Your task to perform on an android device: Search for "bose soundlink mini" on newegg.com, select the first entry, add it to the cart, then select checkout. Image 0: 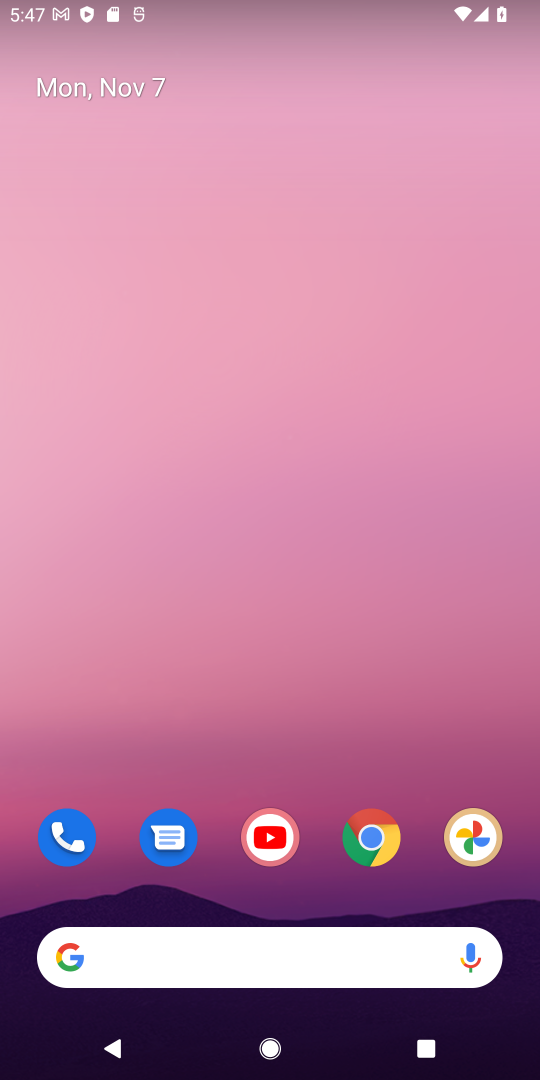
Step 0: click (379, 847)
Your task to perform on an android device: Search for "bose soundlink mini" on newegg.com, select the first entry, add it to the cart, then select checkout. Image 1: 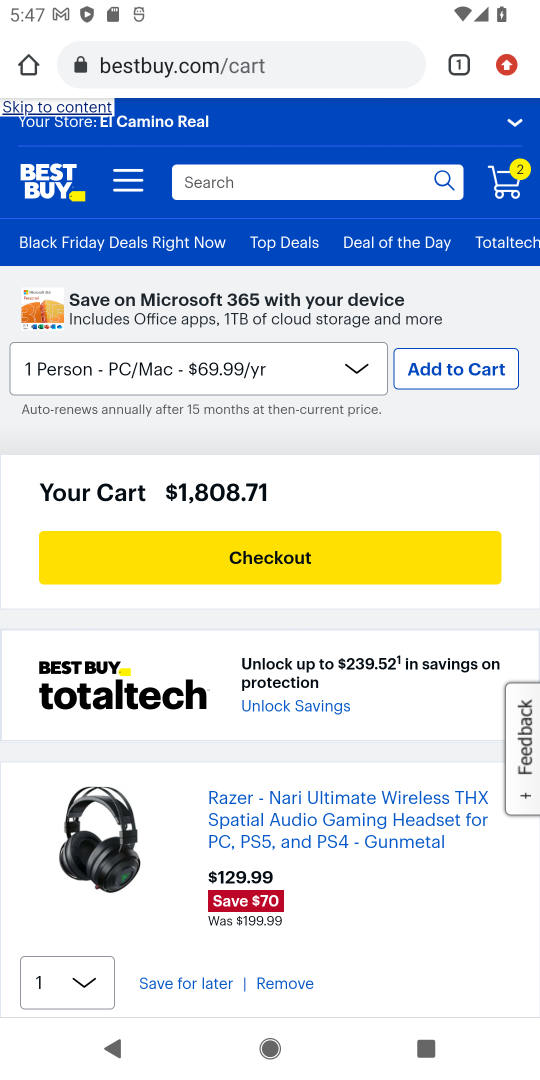
Step 1: click (237, 68)
Your task to perform on an android device: Search for "bose soundlink mini" on newegg.com, select the first entry, add it to the cart, then select checkout. Image 2: 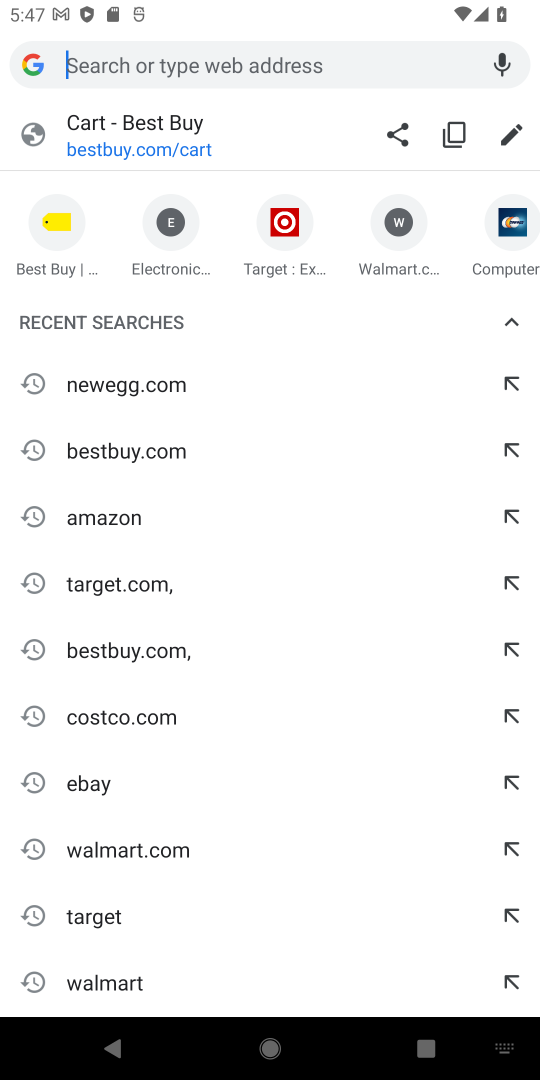
Step 2: type "newegg.com"
Your task to perform on an android device: Search for "bose soundlink mini" on newegg.com, select the first entry, add it to the cart, then select checkout. Image 3: 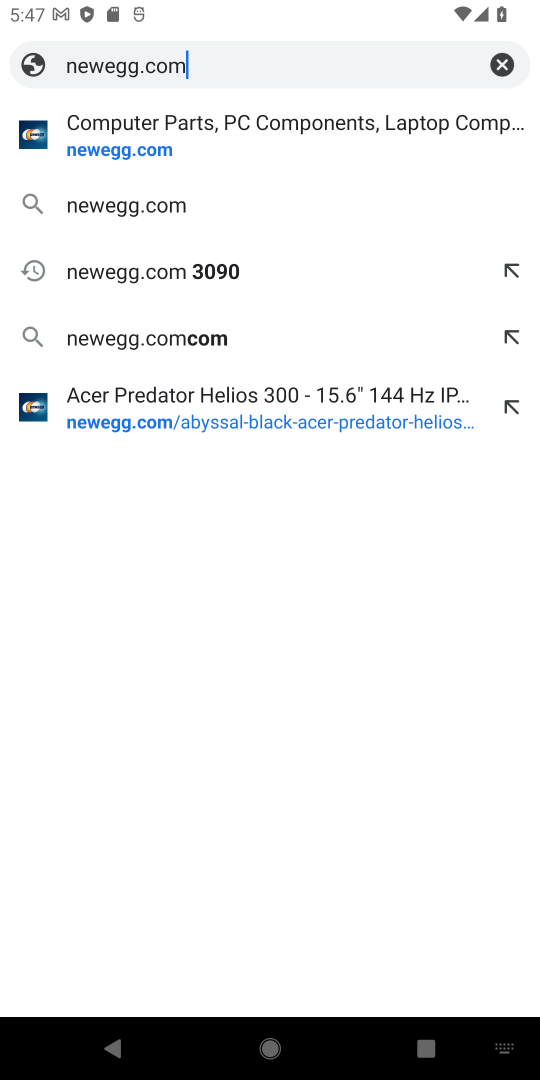
Step 3: click (187, 145)
Your task to perform on an android device: Search for "bose soundlink mini" on newegg.com, select the first entry, add it to the cart, then select checkout. Image 4: 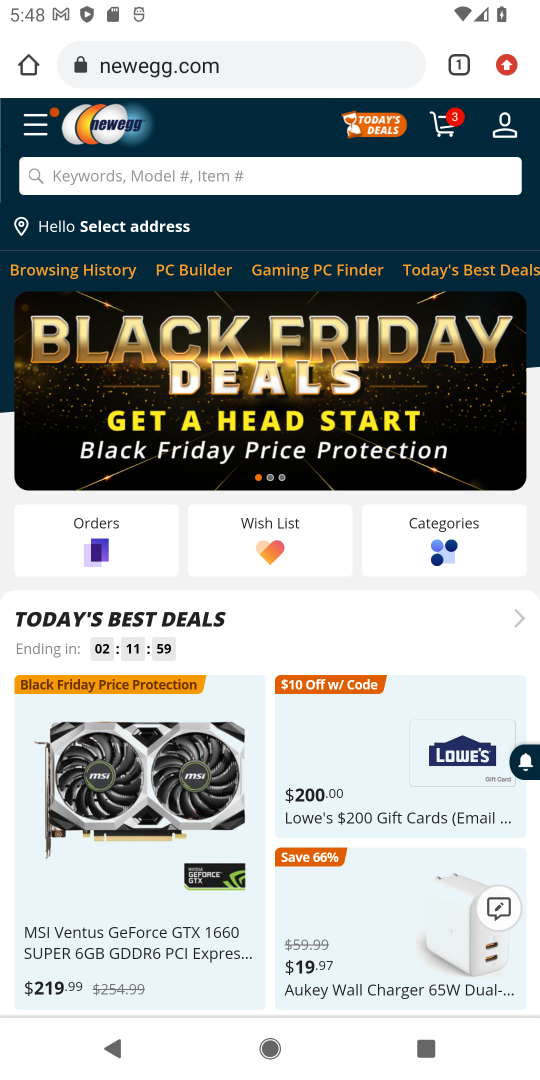
Step 4: click (218, 187)
Your task to perform on an android device: Search for "bose soundlink mini" on newegg.com, select the first entry, add it to the cart, then select checkout. Image 5: 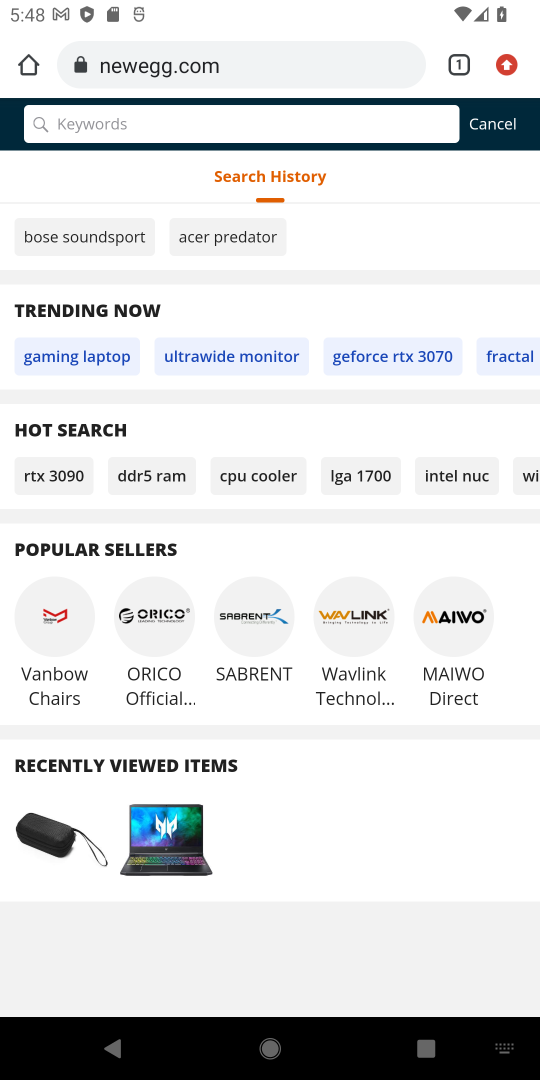
Step 5: type "bose soundlink mini"
Your task to perform on an android device: Search for "bose soundlink mini" on newegg.com, select the first entry, add it to the cart, then select checkout. Image 6: 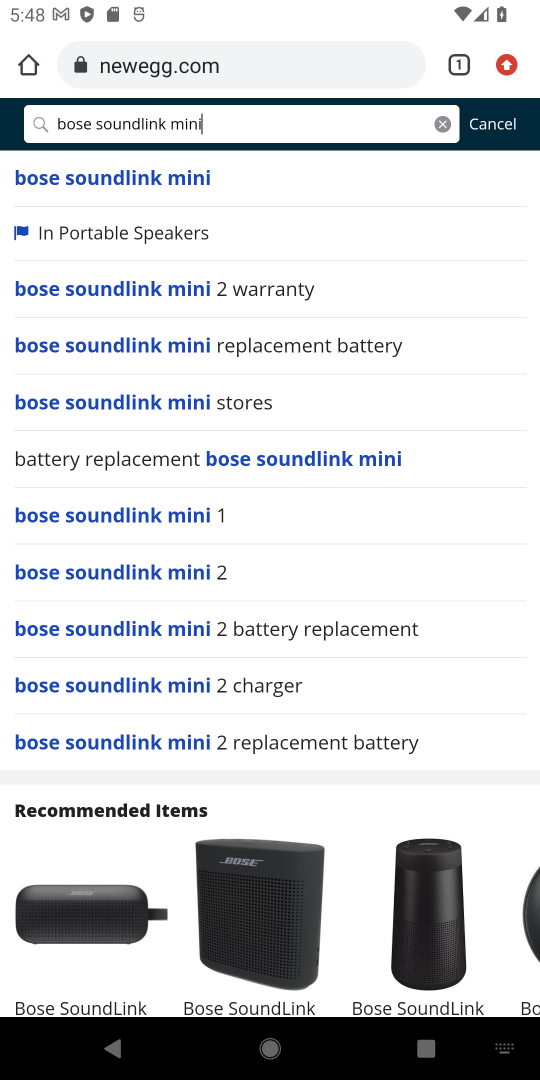
Step 6: press enter
Your task to perform on an android device: Search for "bose soundlink mini" on newegg.com, select the first entry, add it to the cart, then select checkout. Image 7: 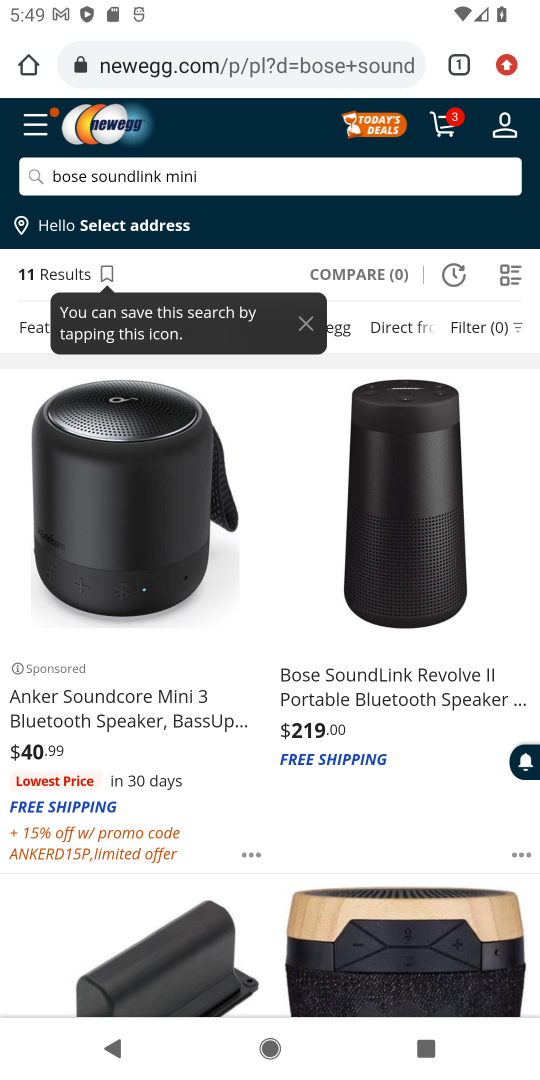
Step 7: click (200, 611)
Your task to perform on an android device: Search for "bose soundlink mini" on newegg.com, select the first entry, add it to the cart, then select checkout. Image 8: 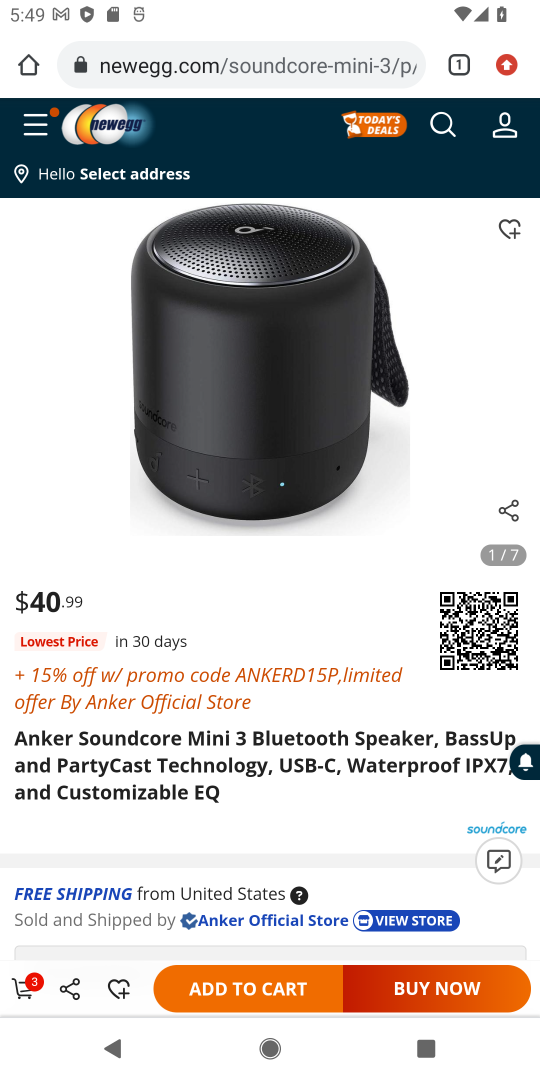
Step 8: click (280, 988)
Your task to perform on an android device: Search for "bose soundlink mini" on newegg.com, select the first entry, add it to the cart, then select checkout. Image 9: 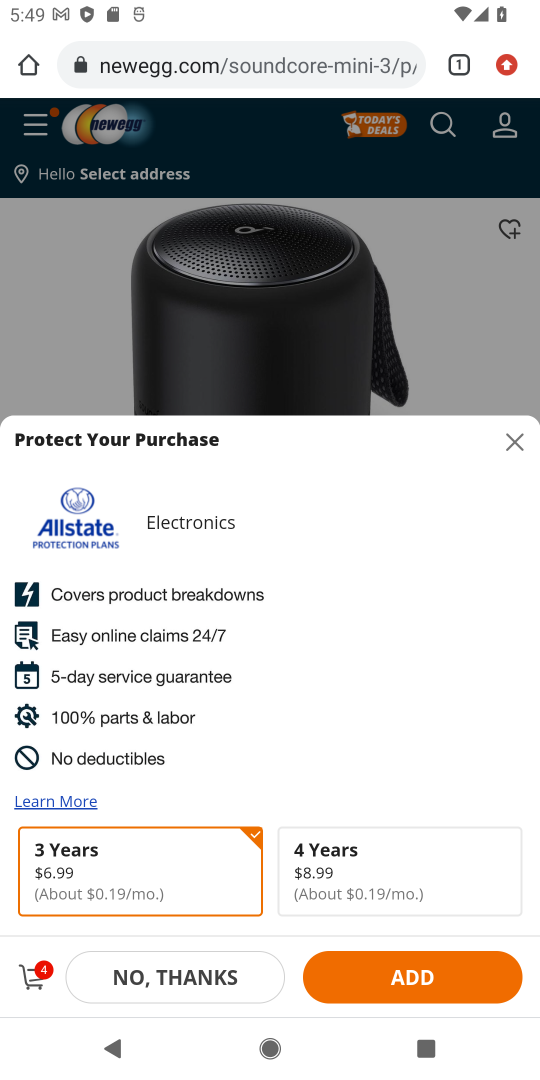
Step 9: click (521, 437)
Your task to perform on an android device: Search for "bose soundlink mini" on newegg.com, select the first entry, add it to the cart, then select checkout. Image 10: 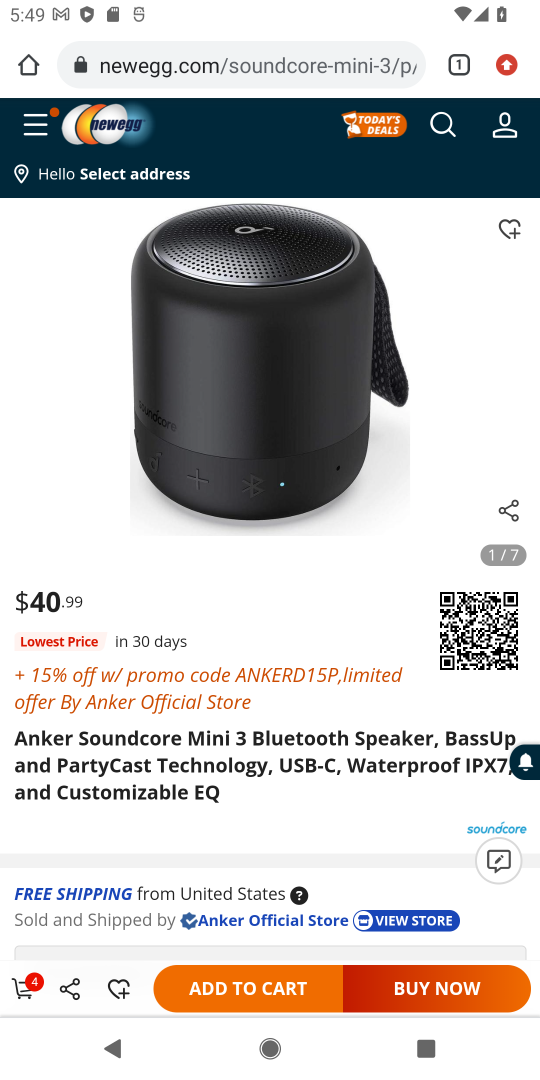
Step 10: click (257, 999)
Your task to perform on an android device: Search for "bose soundlink mini" on newegg.com, select the first entry, add it to the cart, then select checkout. Image 11: 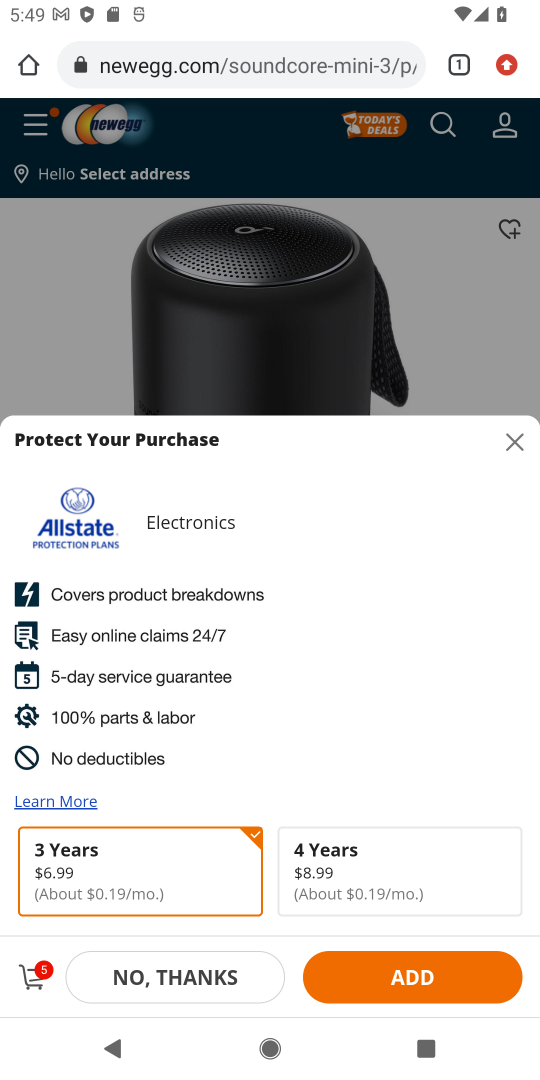
Step 11: click (177, 981)
Your task to perform on an android device: Search for "bose soundlink mini" on newegg.com, select the first entry, add it to the cart, then select checkout. Image 12: 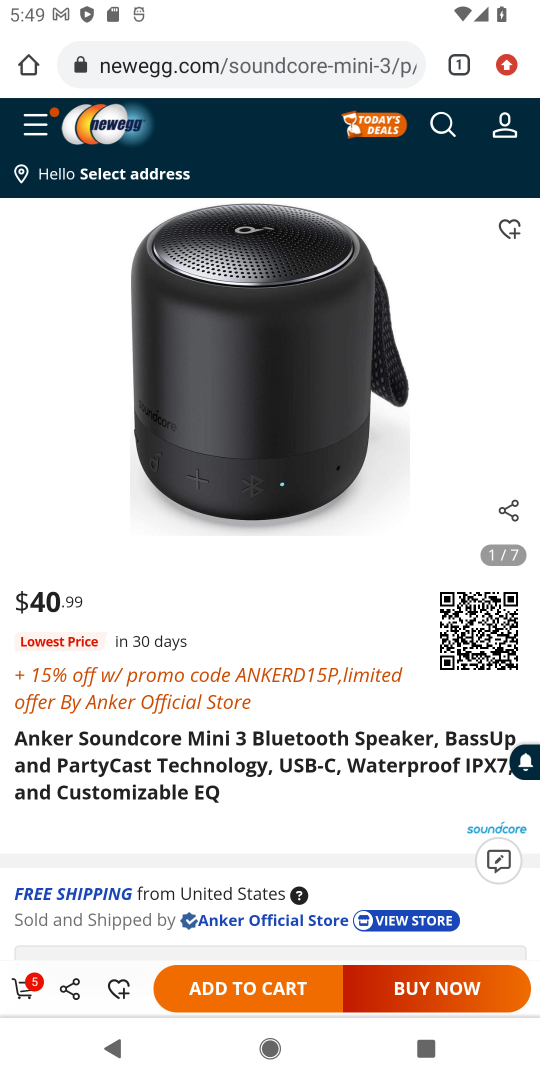
Step 12: click (37, 127)
Your task to perform on an android device: Search for "bose soundlink mini" on newegg.com, select the first entry, add it to the cart, then select checkout. Image 13: 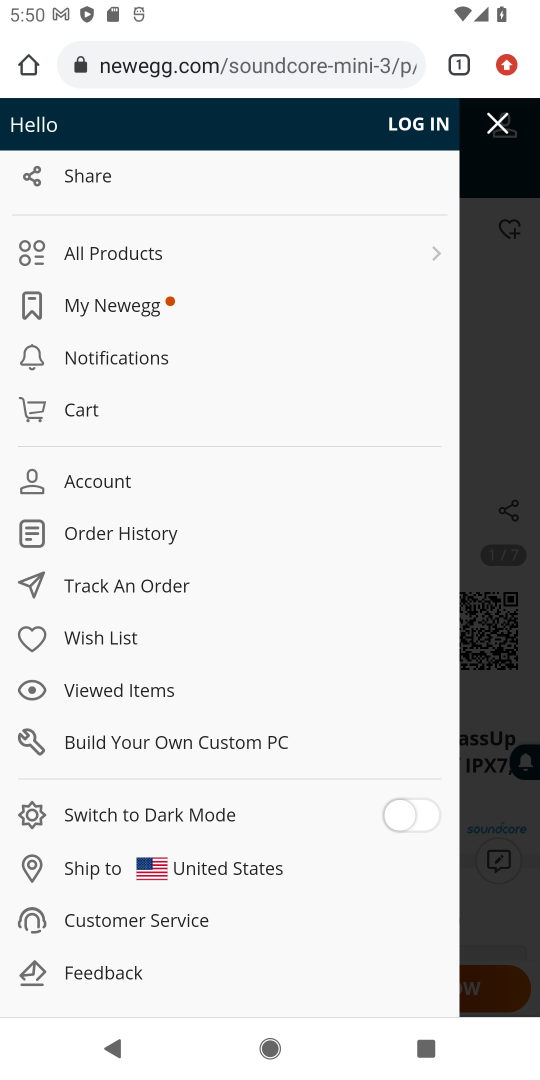
Step 13: click (71, 418)
Your task to perform on an android device: Search for "bose soundlink mini" on newegg.com, select the first entry, add it to the cart, then select checkout. Image 14: 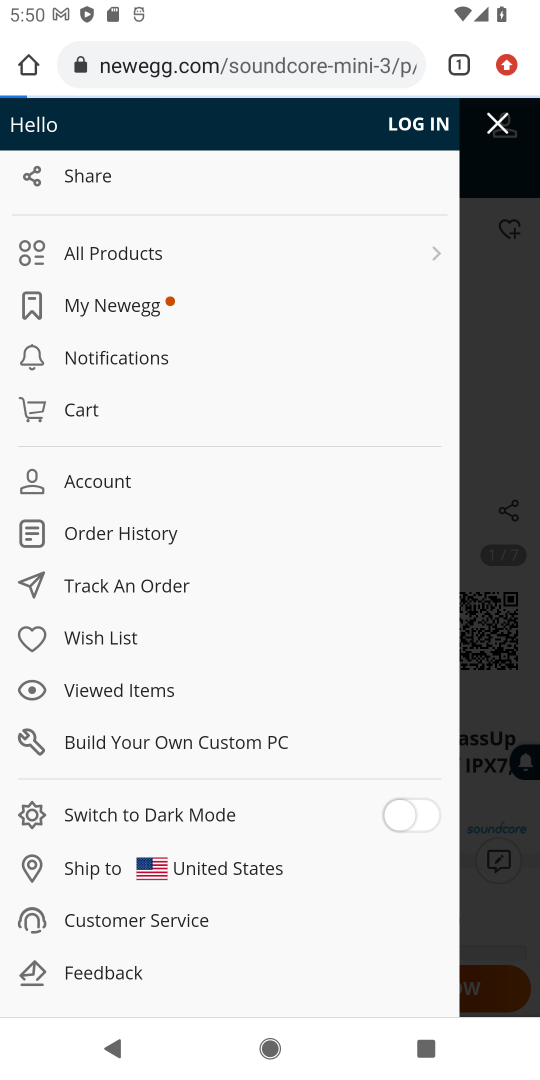
Step 14: drag from (71, 418) to (121, 559)
Your task to perform on an android device: Search for "bose soundlink mini" on newegg.com, select the first entry, add it to the cart, then select checkout. Image 15: 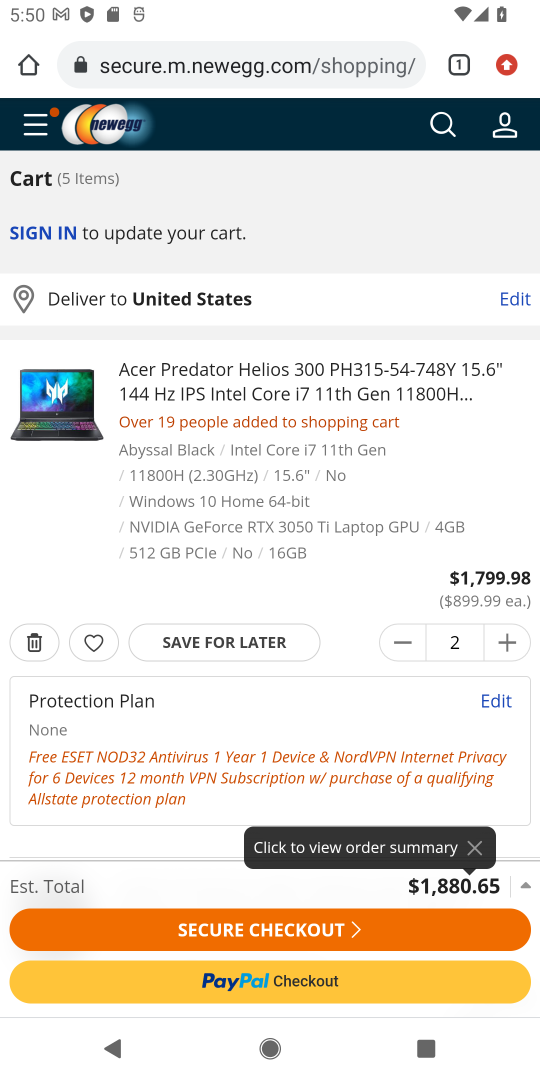
Step 15: click (350, 937)
Your task to perform on an android device: Search for "bose soundlink mini" on newegg.com, select the first entry, add it to the cart, then select checkout. Image 16: 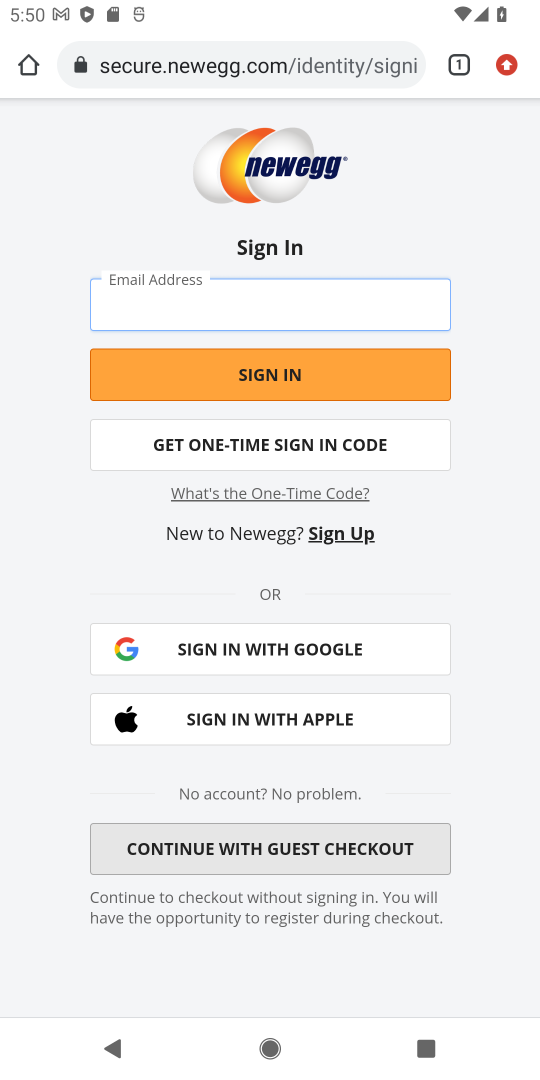
Step 16: task complete